Your task to perform on an android device: View the shopping cart on bestbuy.com. Search for acer nitro on bestbuy.com, select the first entry, add it to the cart, then select checkout. Image 0: 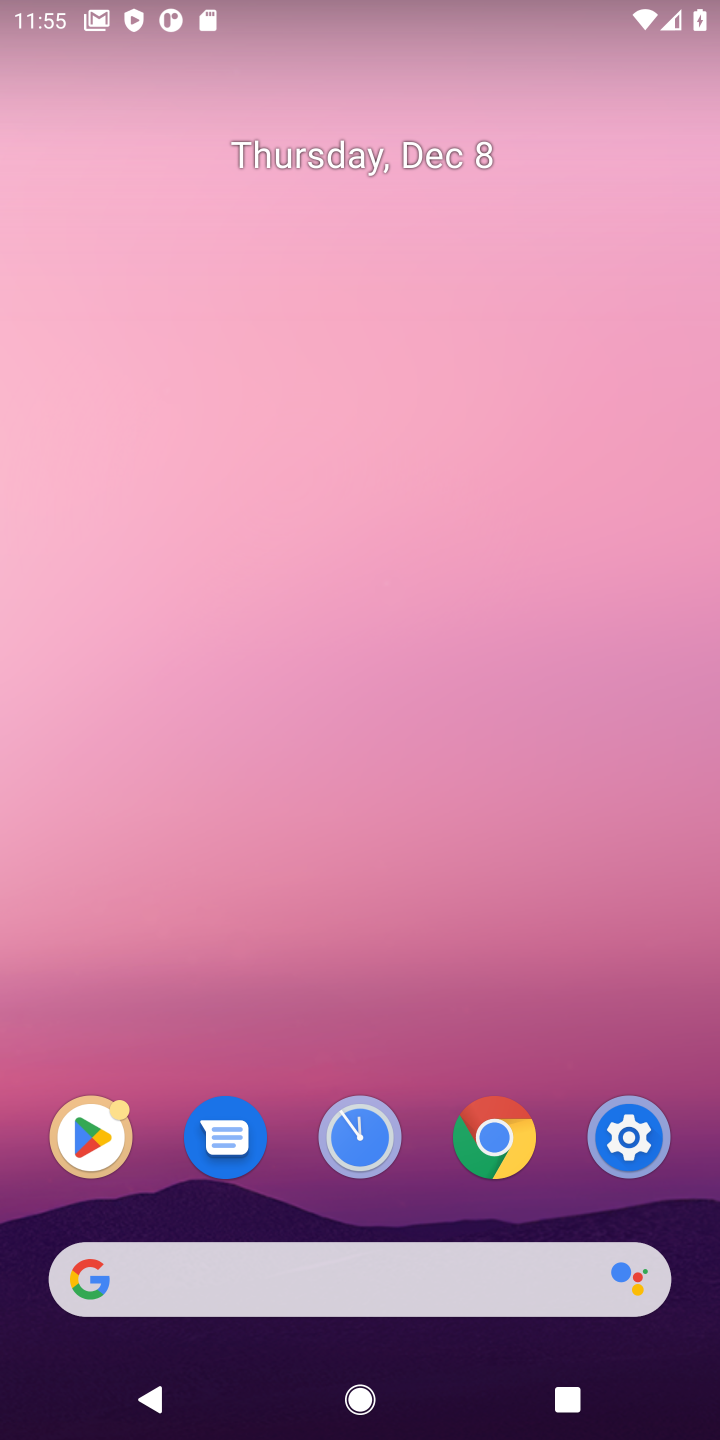
Step 0: click (352, 1266)
Your task to perform on an android device: View the shopping cart on bestbuy.com. Search for acer nitro on bestbuy.com, select the first entry, add it to the cart, then select checkout. Image 1: 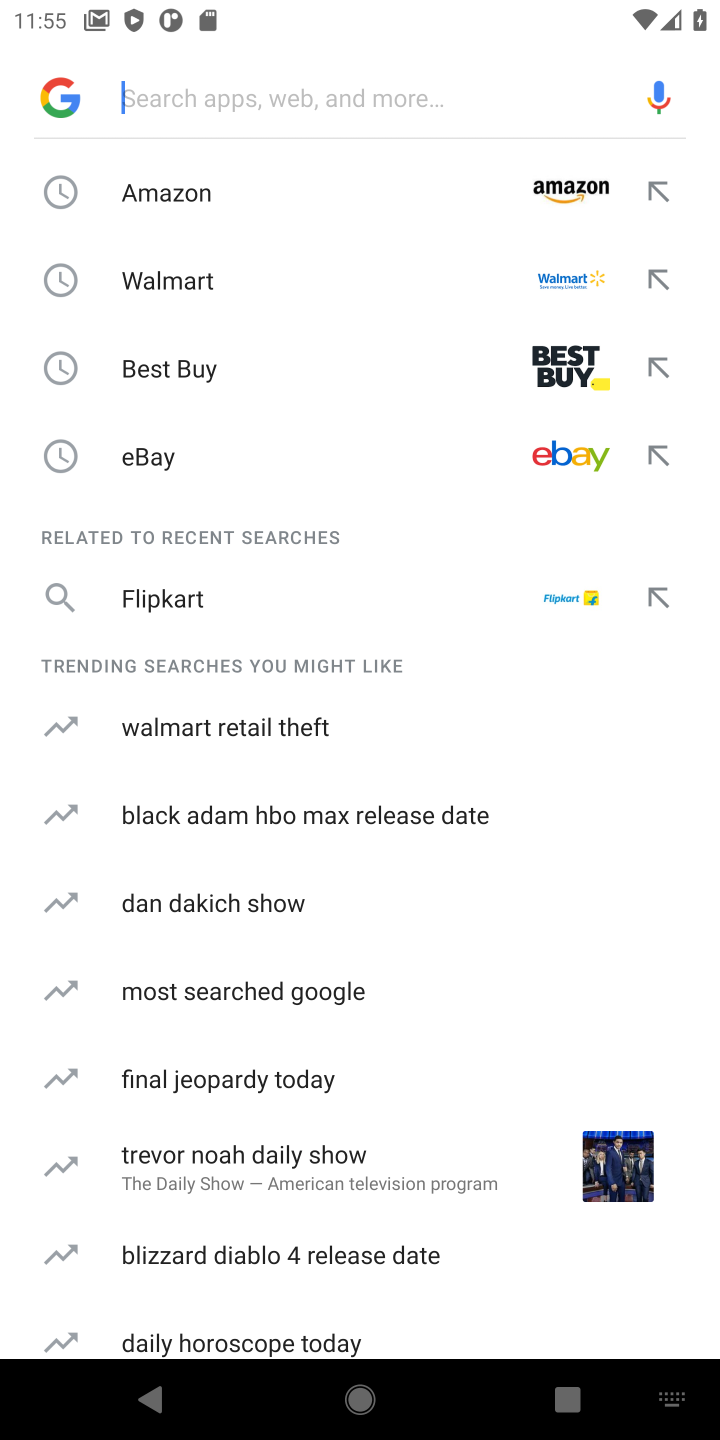
Step 1: type "bestbuy"
Your task to perform on an android device: View the shopping cart on bestbuy.com. Search for acer nitro on bestbuy.com, select the first entry, add it to the cart, then select checkout. Image 2: 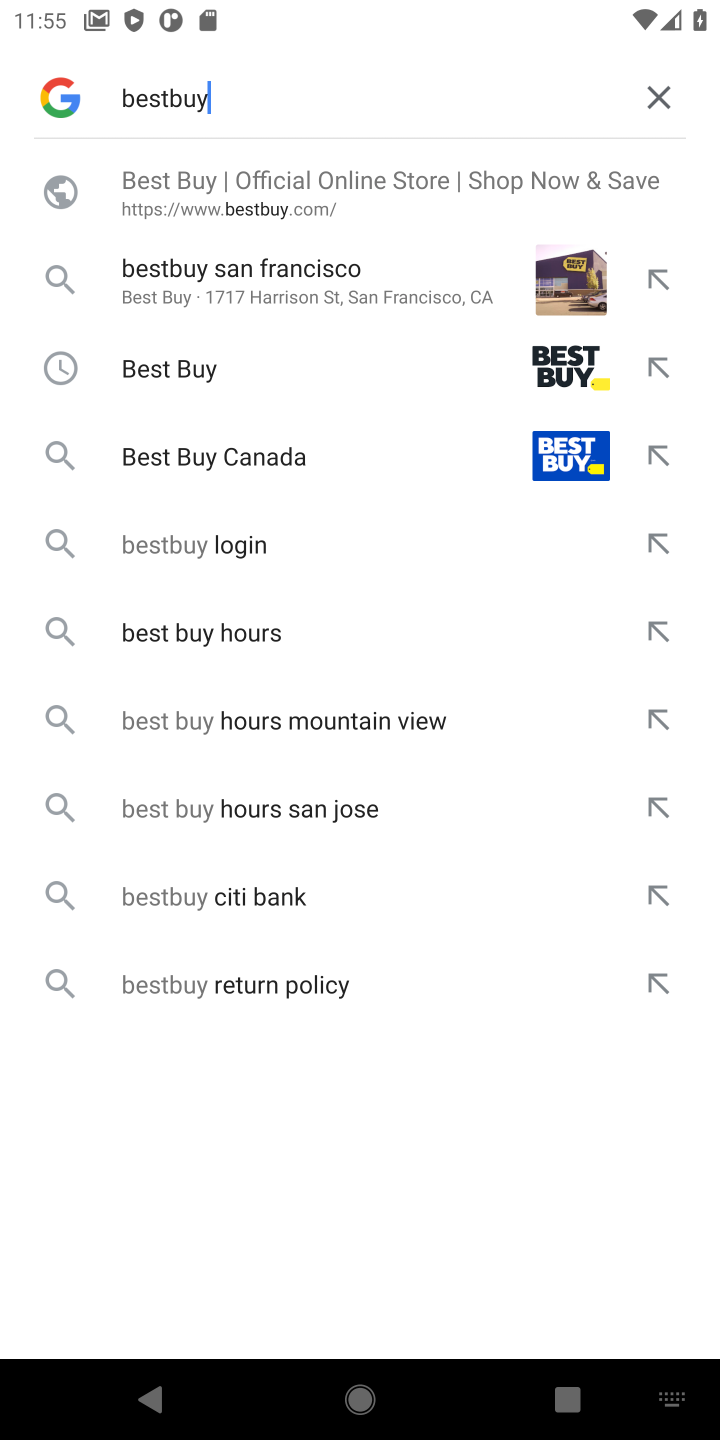
Step 2: click (156, 270)
Your task to perform on an android device: View the shopping cart on bestbuy.com. Search for acer nitro on bestbuy.com, select the first entry, add it to the cart, then select checkout. Image 3: 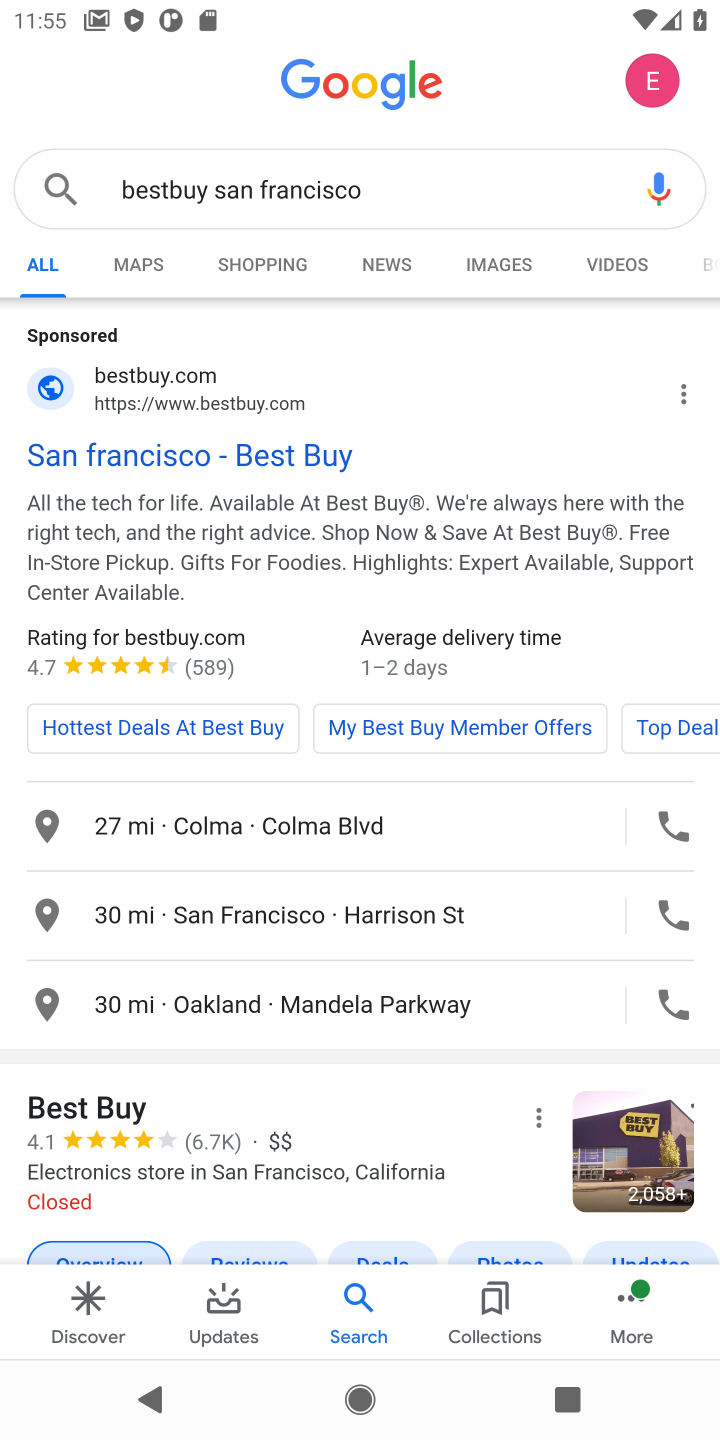
Step 3: click (284, 454)
Your task to perform on an android device: View the shopping cart on bestbuy.com. Search for acer nitro on bestbuy.com, select the first entry, add it to the cart, then select checkout. Image 4: 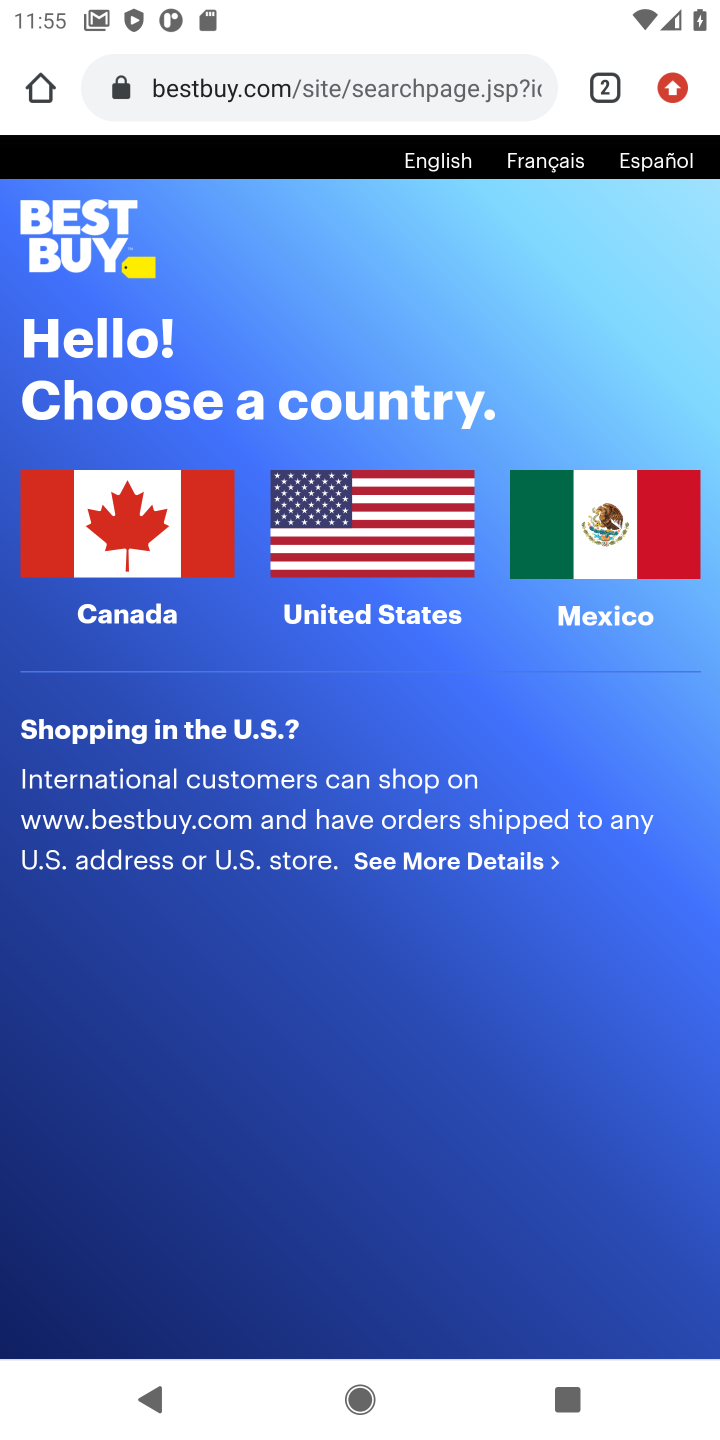
Step 4: click (161, 540)
Your task to perform on an android device: View the shopping cart on bestbuy.com. Search for acer nitro on bestbuy.com, select the first entry, add it to the cart, then select checkout. Image 5: 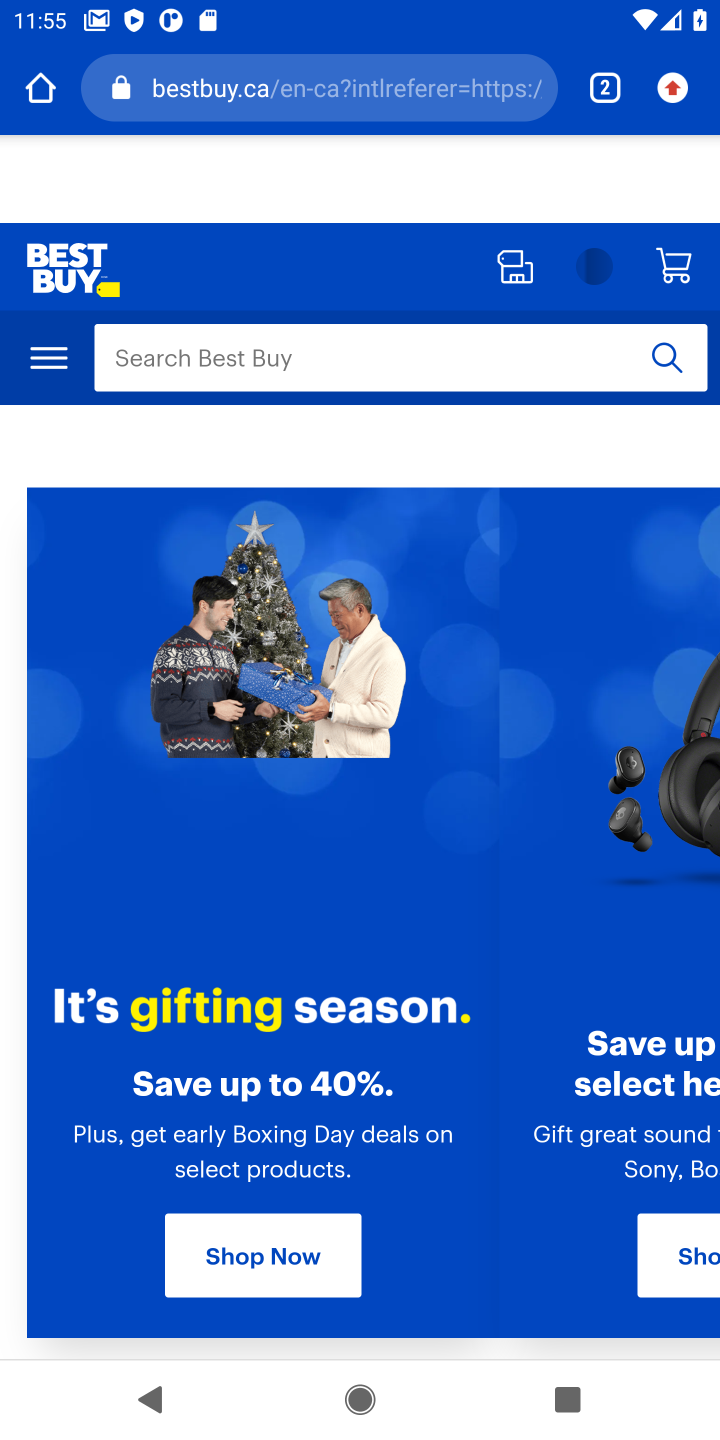
Step 5: drag from (427, 1224) to (385, 445)
Your task to perform on an android device: View the shopping cart on bestbuy.com. Search for acer nitro on bestbuy.com, select the first entry, add it to the cart, then select checkout. Image 6: 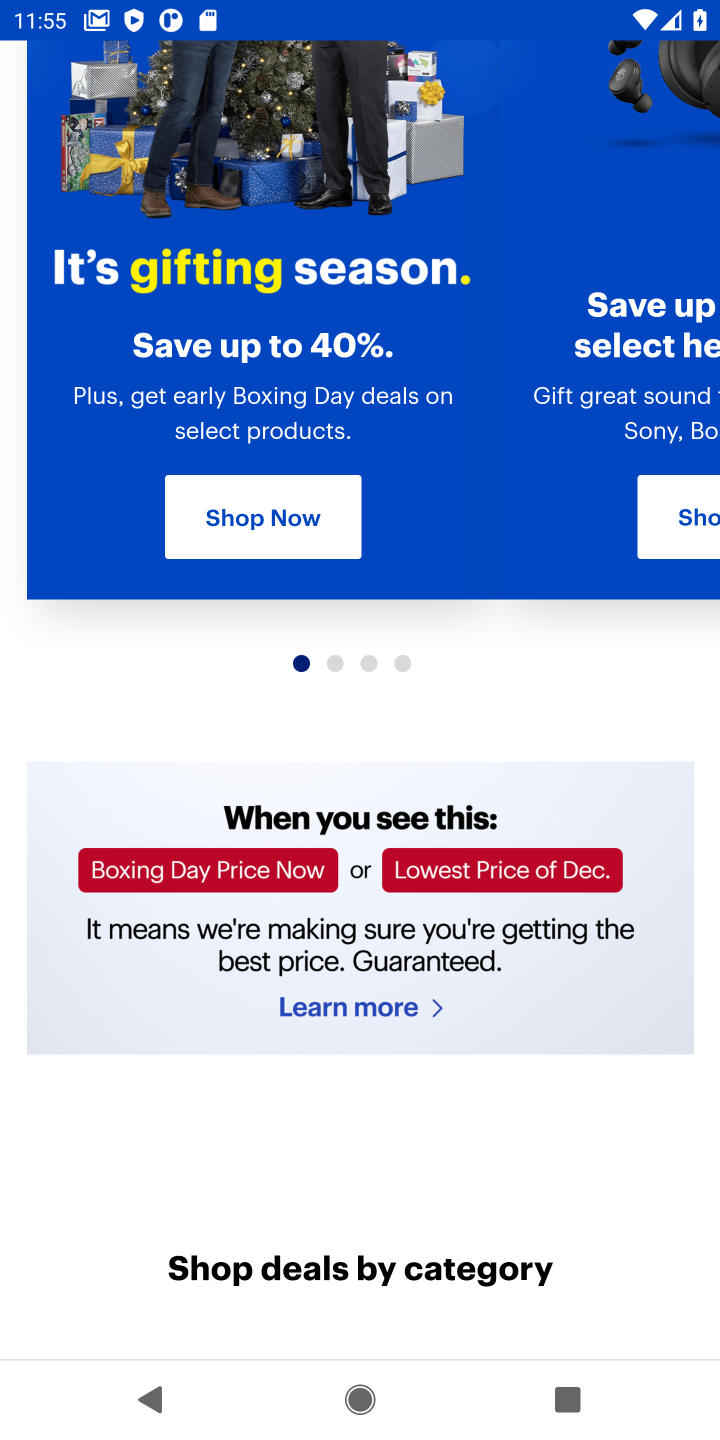
Step 6: drag from (409, 1263) to (396, 568)
Your task to perform on an android device: View the shopping cart on bestbuy.com. Search for acer nitro on bestbuy.com, select the first entry, add it to the cart, then select checkout. Image 7: 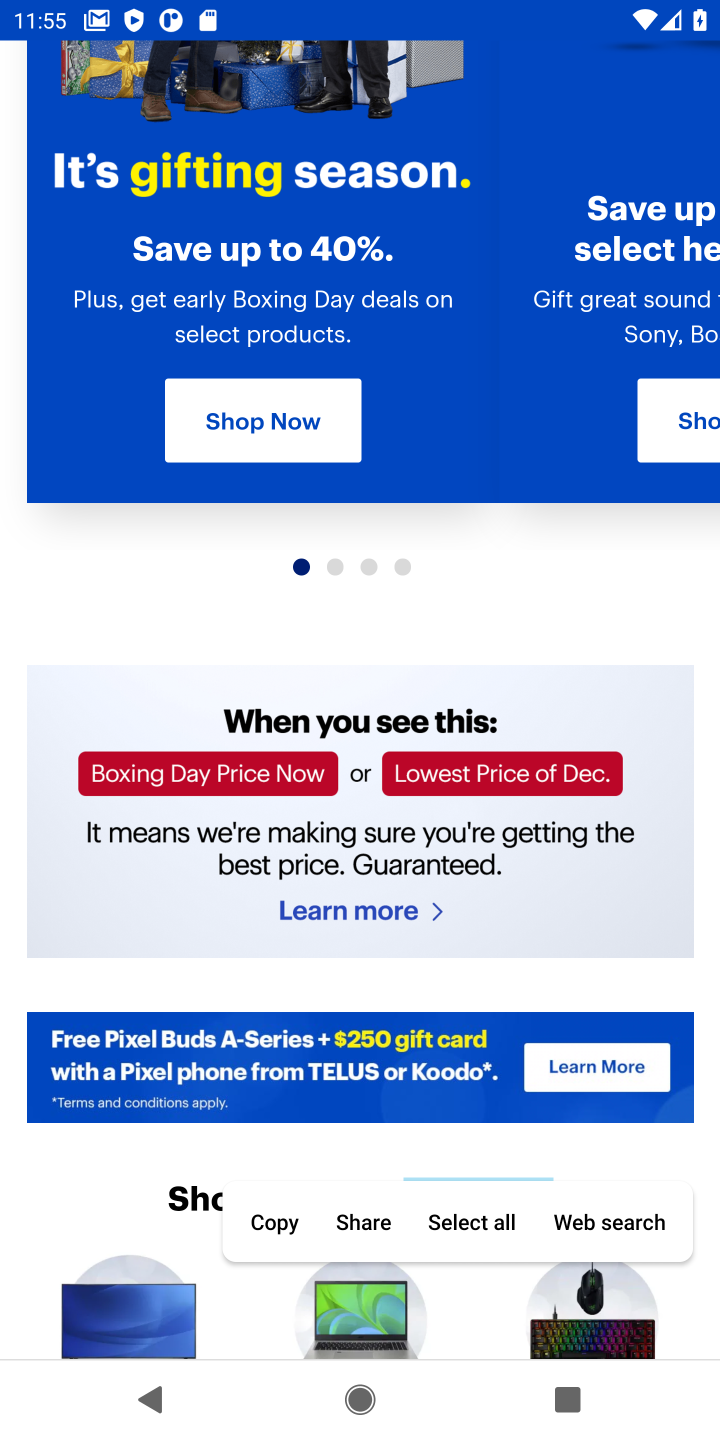
Step 7: drag from (602, 564) to (691, 826)
Your task to perform on an android device: View the shopping cart on bestbuy.com. Search for acer nitro on bestbuy.com, select the first entry, add it to the cart, then select checkout. Image 8: 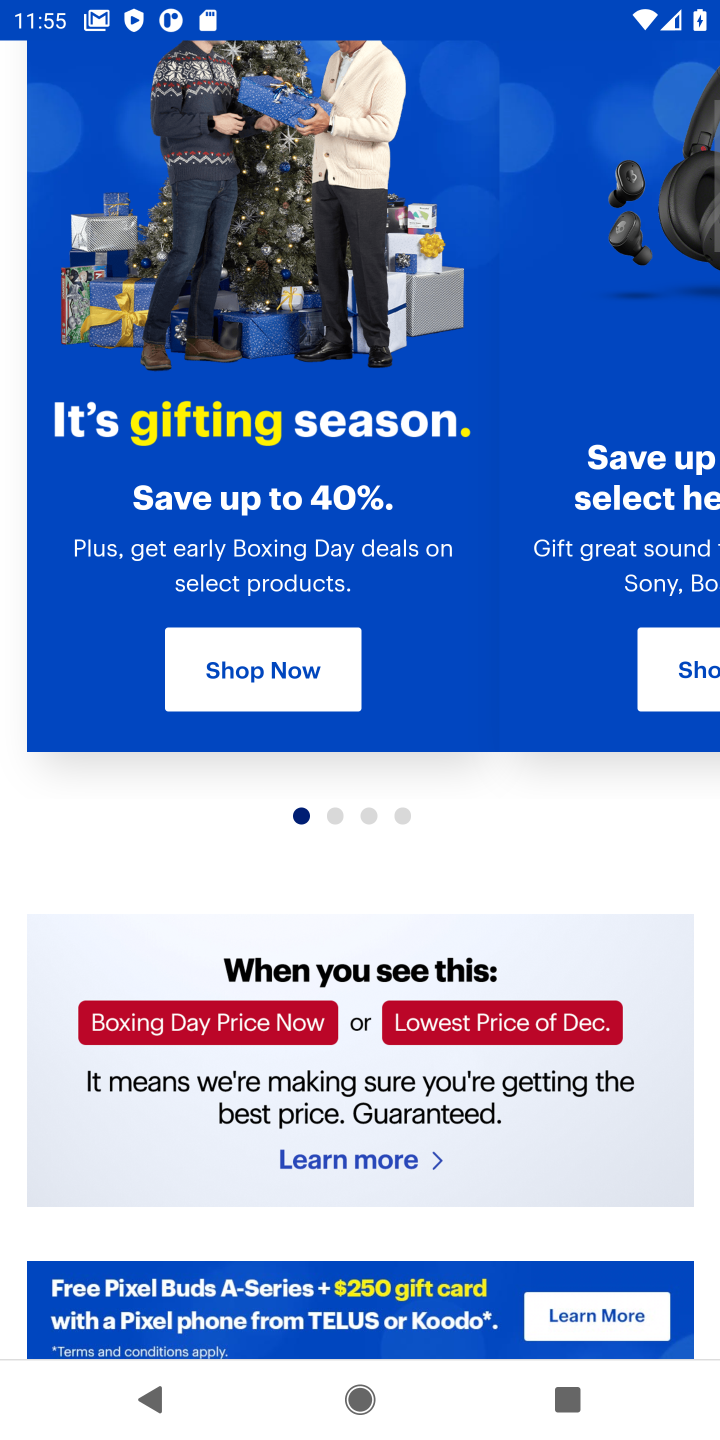
Step 8: drag from (566, 467) to (671, 1099)
Your task to perform on an android device: View the shopping cart on bestbuy.com. Search for acer nitro on bestbuy.com, select the first entry, add it to the cart, then select checkout. Image 9: 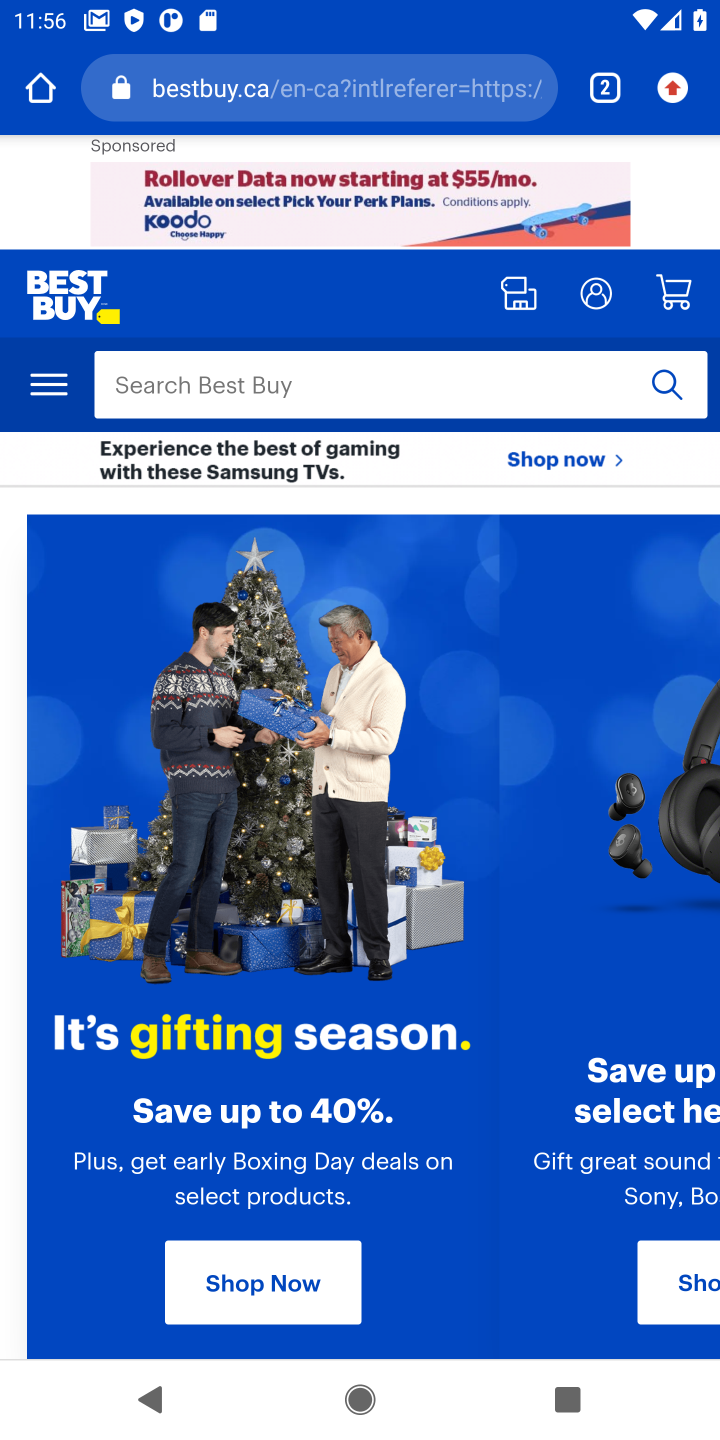
Step 9: click (369, 389)
Your task to perform on an android device: View the shopping cart on bestbuy.com. Search for acer nitro on bestbuy.com, select the first entry, add it to the cart, then select checkout. Image 10: 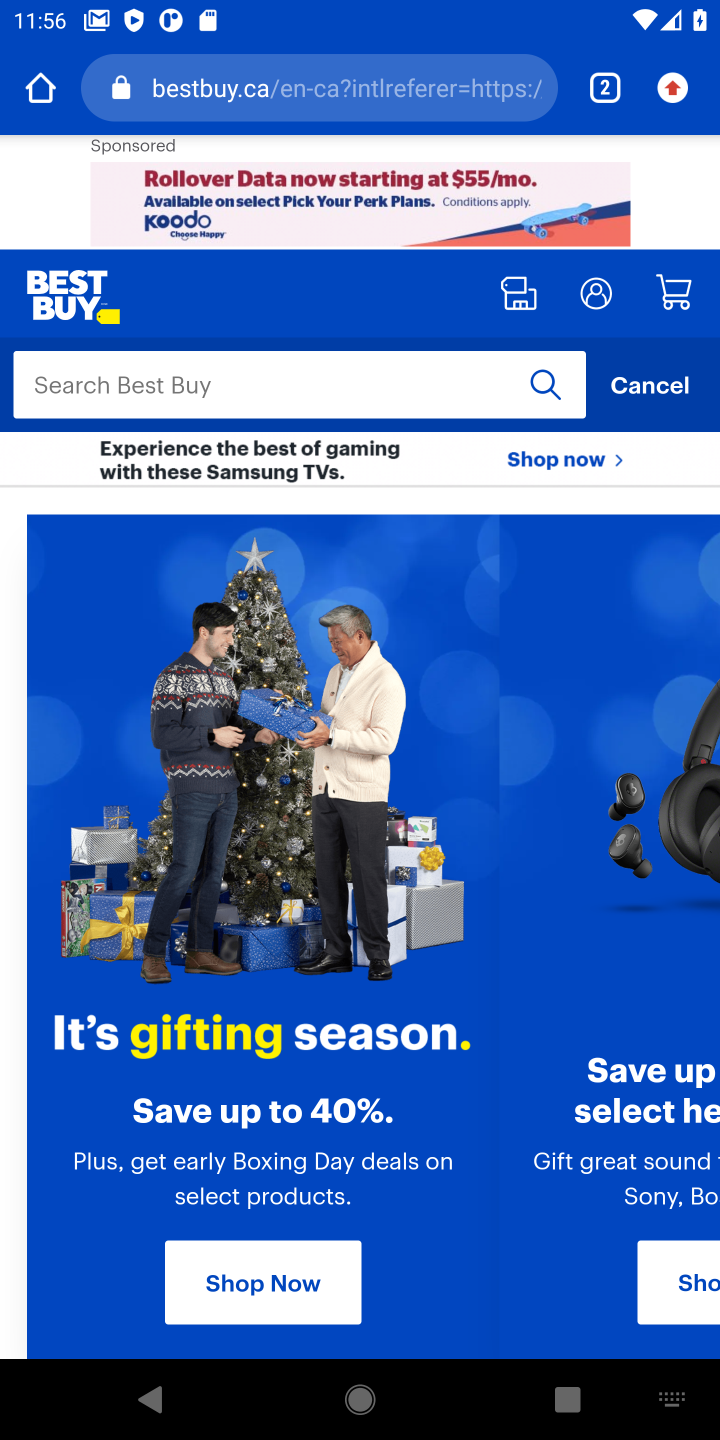
Step 10: type "acer nitro"
Your task to perform on an android device: View the shopping cart on bestbuy.com. Search for acer nitro on bestbuy.com, select the first entry, add it to the cart, then select checkout. Image 11: 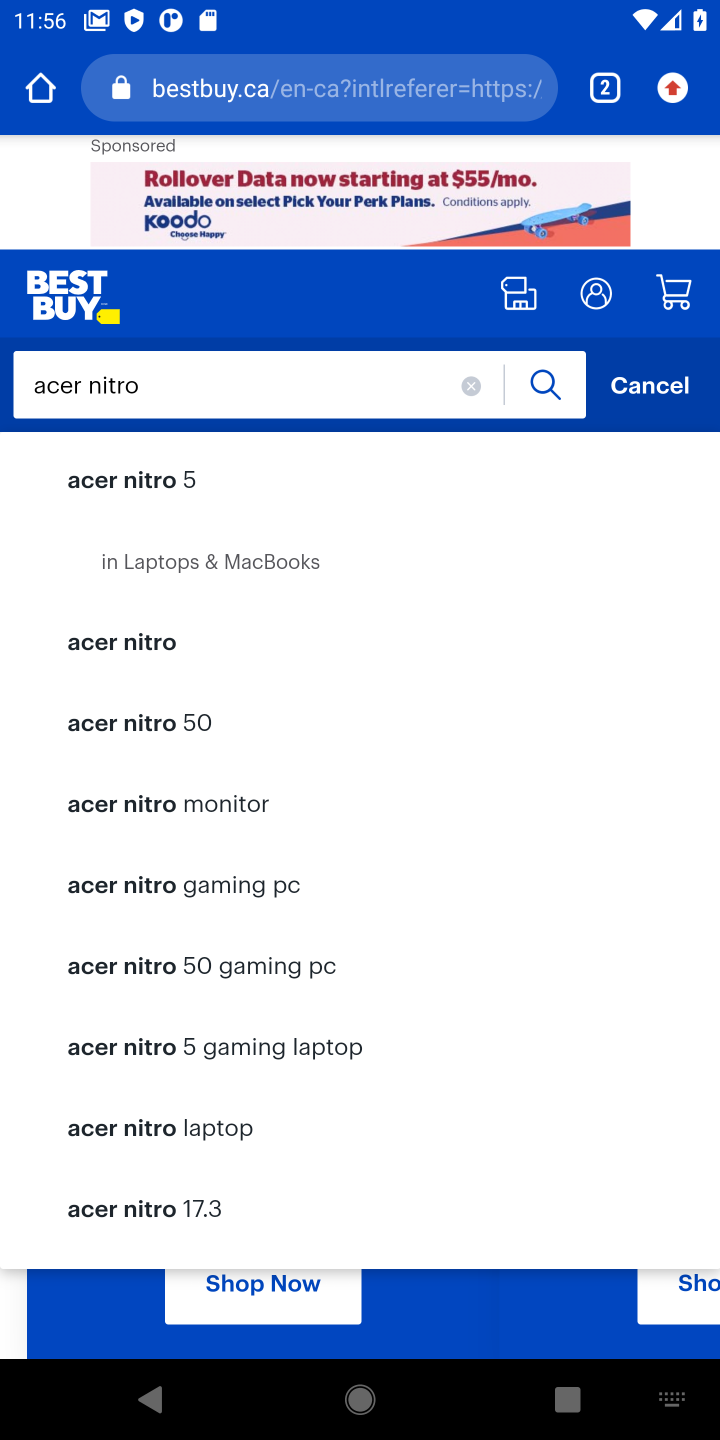
Step 11: click (538, 406)
Your task to perform on an android device: View the shopping cart on bestbuy.com. Search for acer nitro on bestbuy.com, select the first entry, add it to the cart, then select checkout. Image 12: 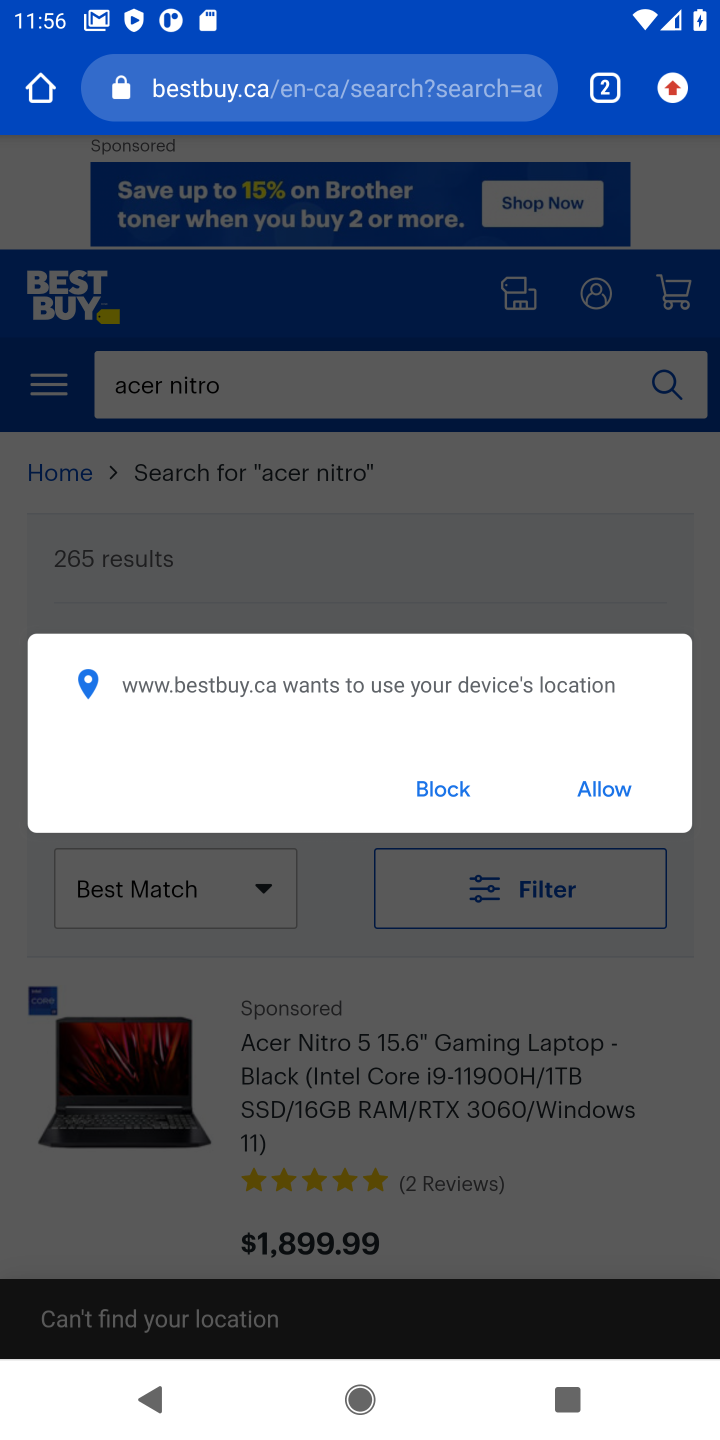
Step 12: click (464, 775)
Your task to perform on an android device: View the shopping cart on bestbuy.com. Search for acer nitro on bestbuy.com, select the first entry, add it to the cart, then select checkout. Image 13: 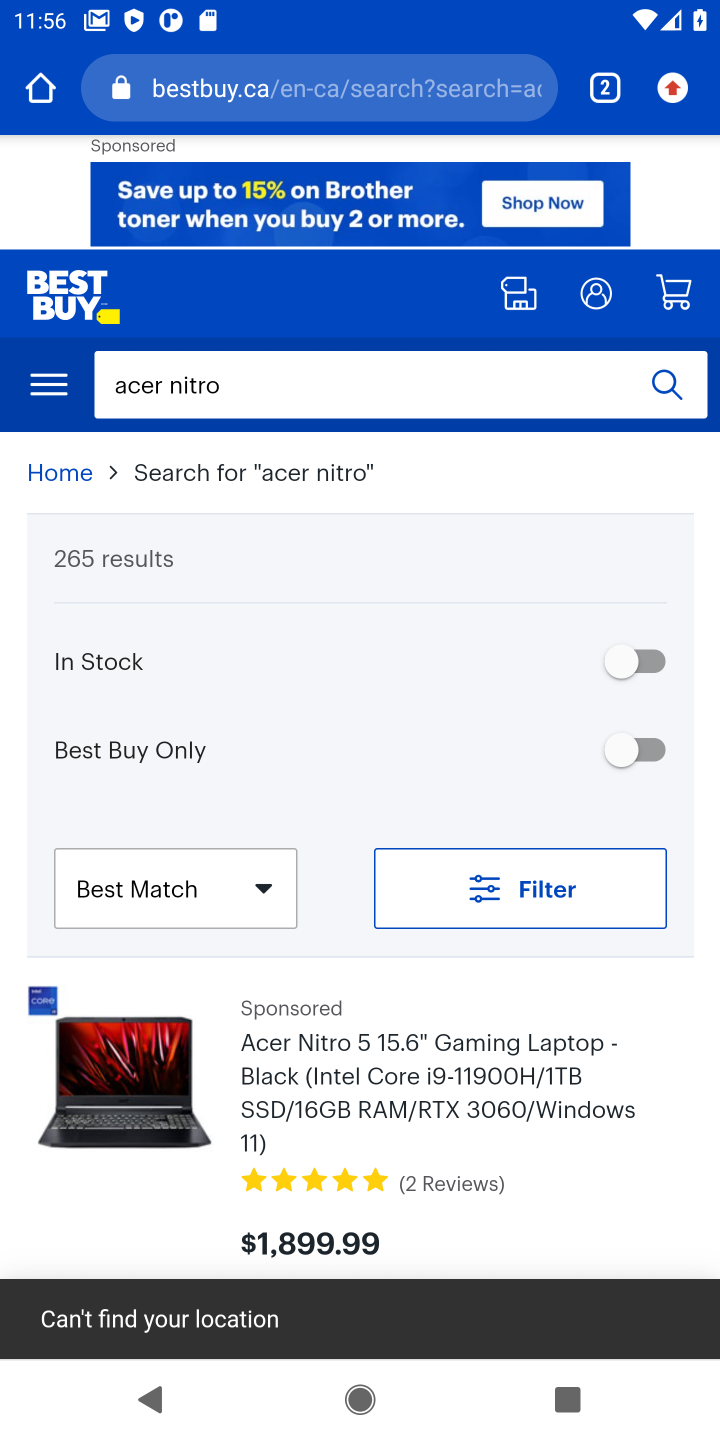
Step 13: drag from (491, 1132) to (487, 504)
Your task to perform on an android device: View the shopping cart on bestbuy.com. Search for acer nitro on bestbuy.com, select the first entry, add it to the cart, then select checkout. Image 14: 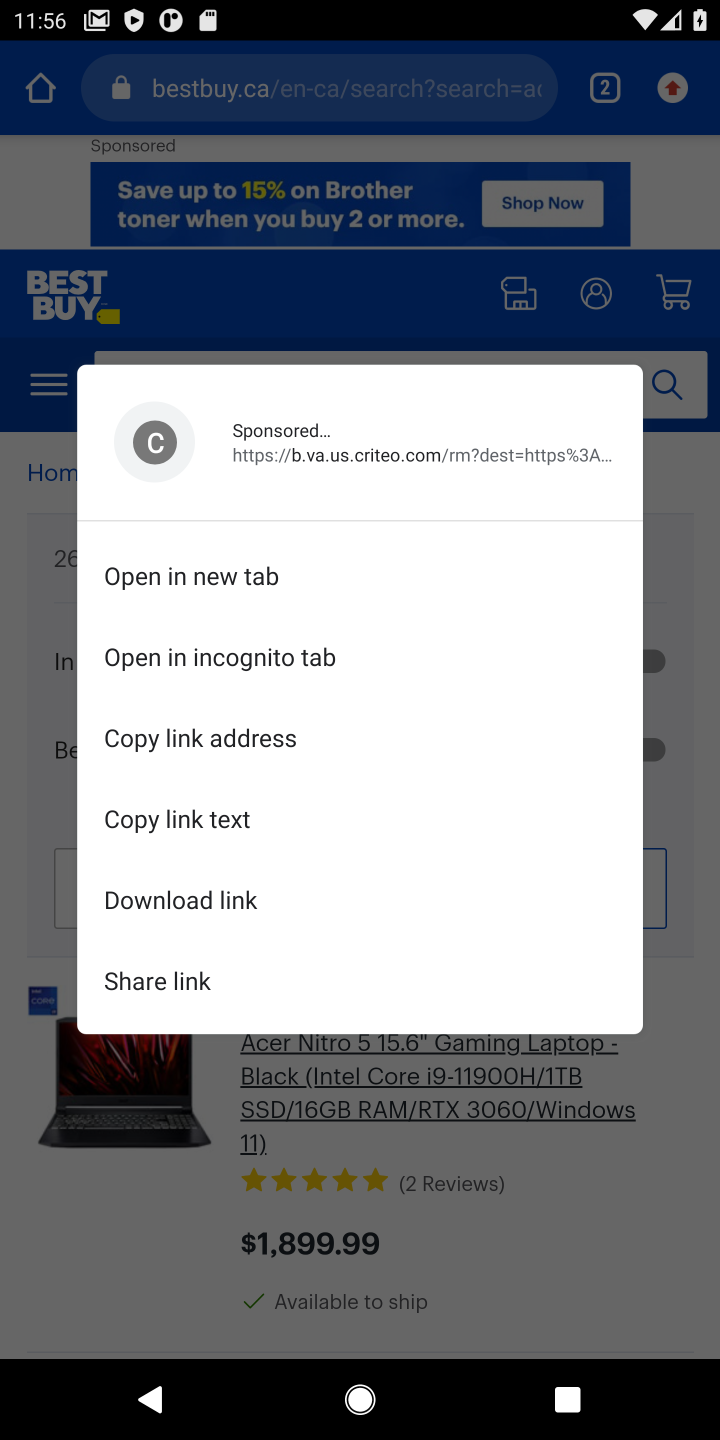
Step 14: click (451, 1282)
Your task to perform on an android device: View the shopping cart on bestbuy.com. Search for acer nitro on bestbuy.com, select the first entry, add it to the cart, then select checkout. Image 15: 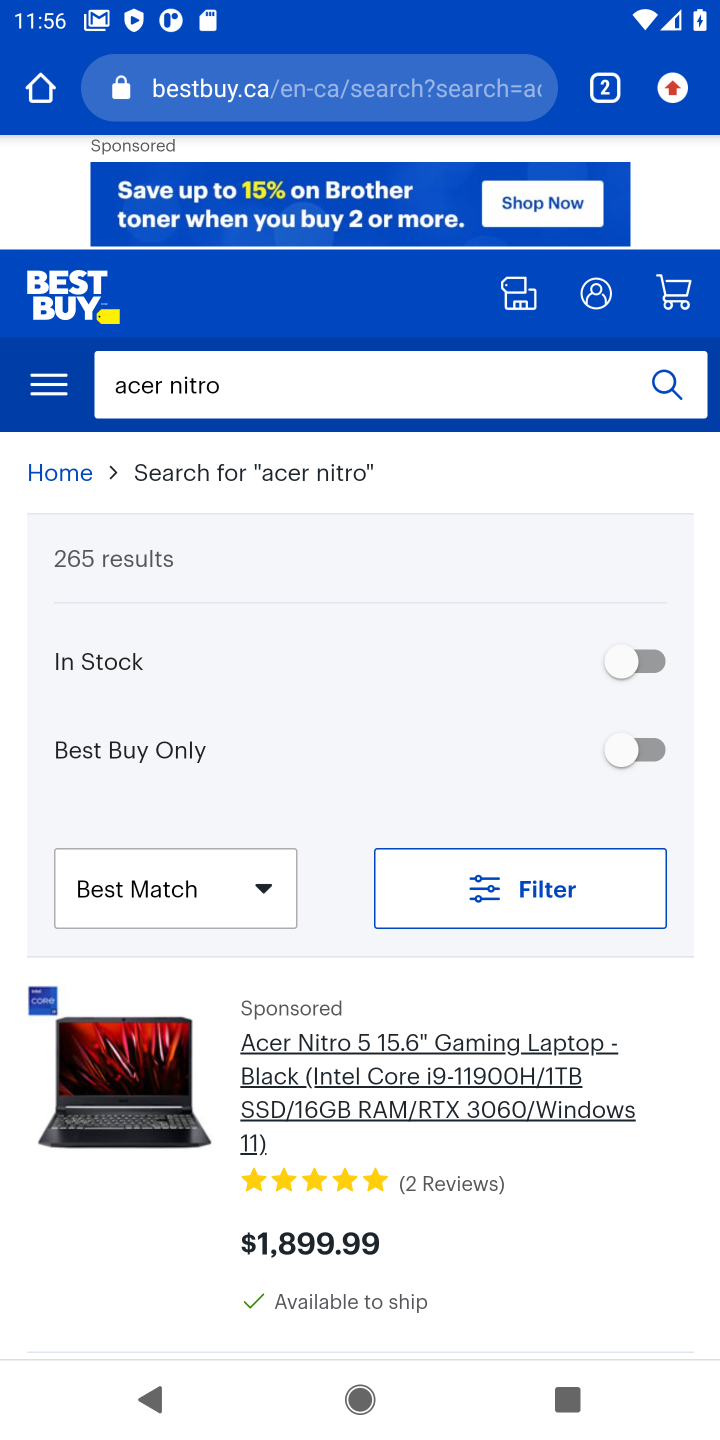
Step 15: click (418, 1109)
Your task to perform on an android device: View the shopping cart on bestbuy.com. Search for acer nitro on bestbuy.com, select the first entry, add it to the cart, then select checkout. Image 16: 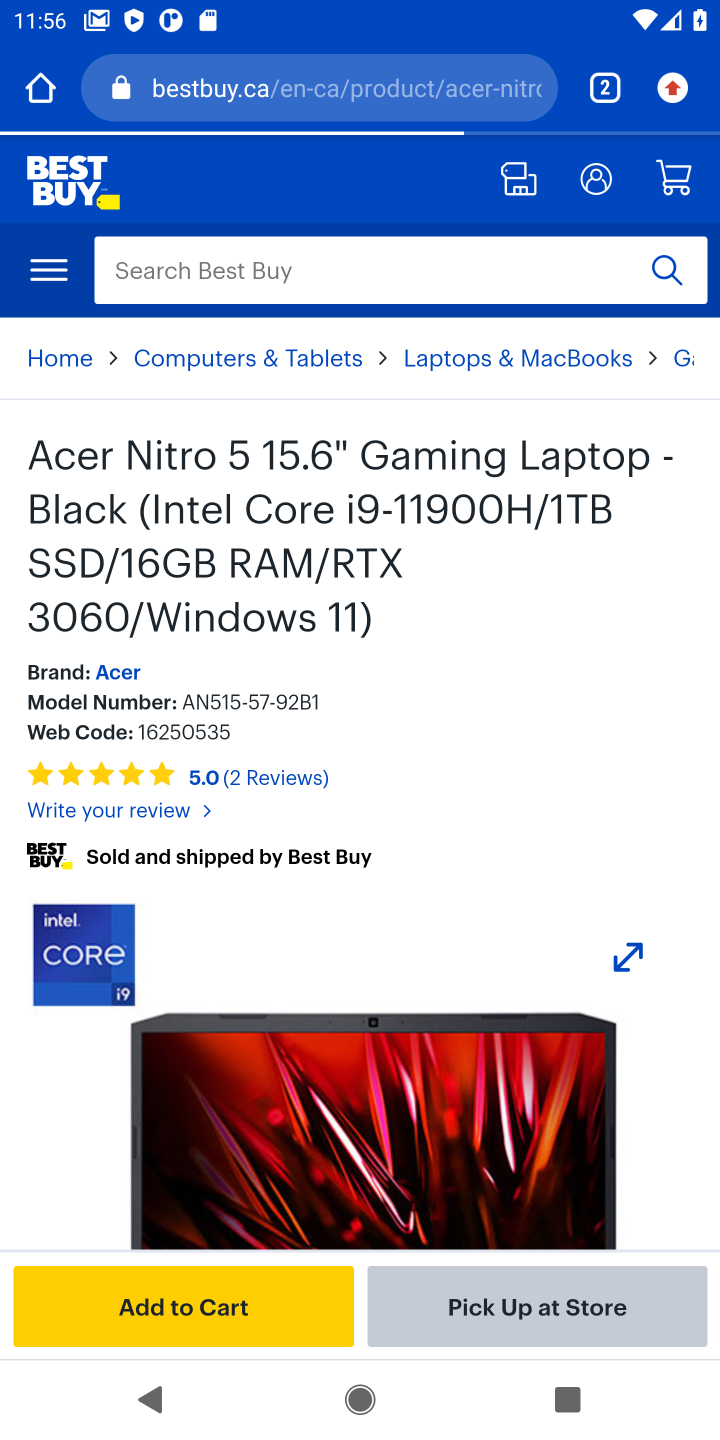
Step 16: click (166, 1333)
Your task to perform on an android device: View the shopping cart on bestbuy.com. Search for acer nitro on bestbuy.com, select the first entry, add it to the cart, then select checkout. Image 17: 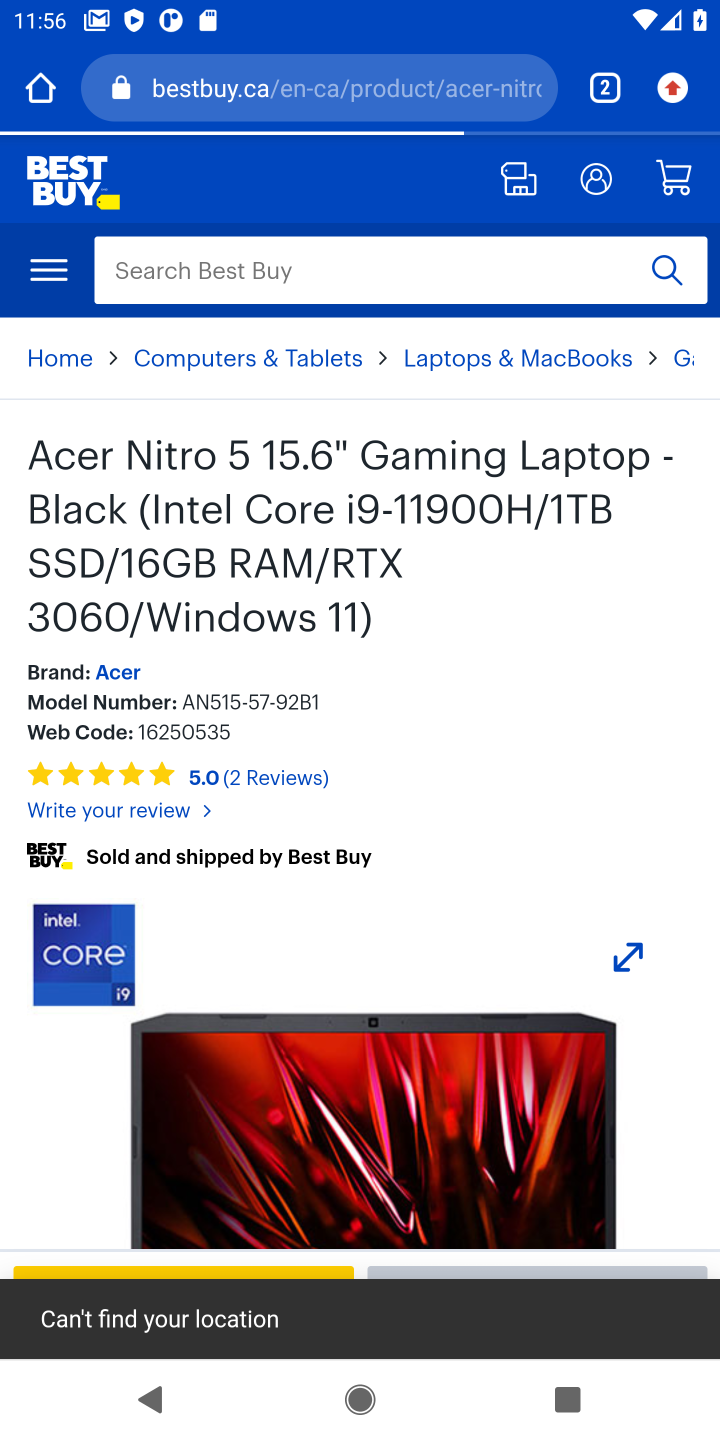
Step 17: task complete